Your task to perform on an android device: set an alarm Image 0: 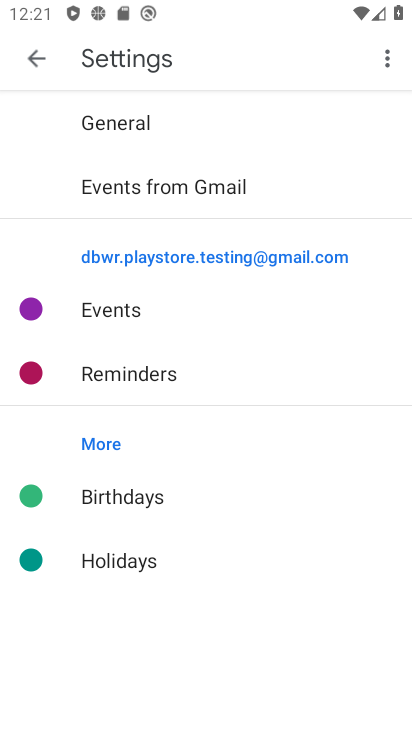
Step 0: press home button
Your task to perform on an android device: set an alarm Image 1: 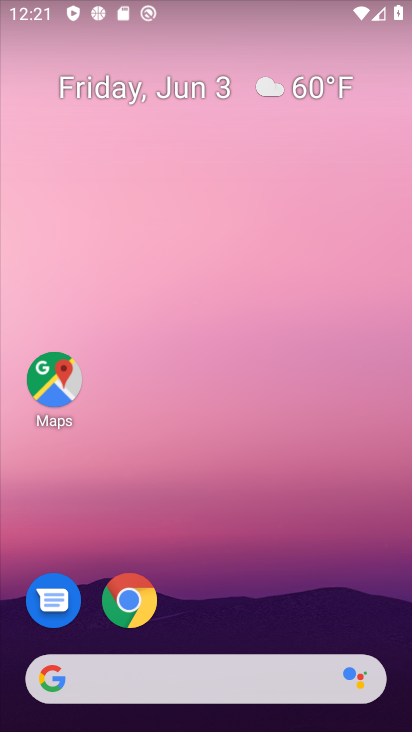
Step 1: drag from (301, 567) to (277, 170)
Your task to perform on an android device: set an alarm Image 2: 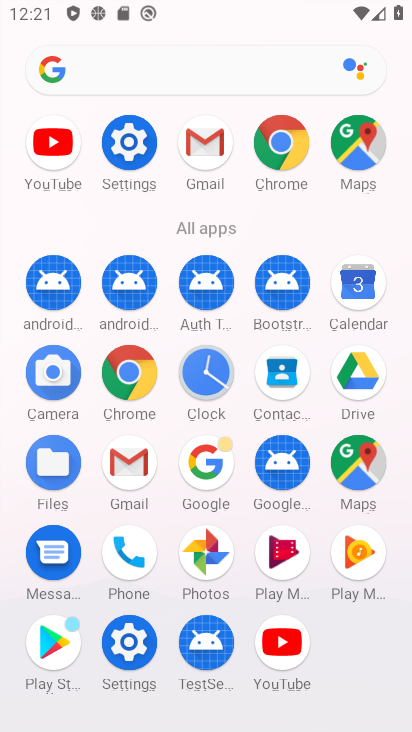
Step 2: click (201, 372)
Your task to perform on an android device: set an alarm Image 3: 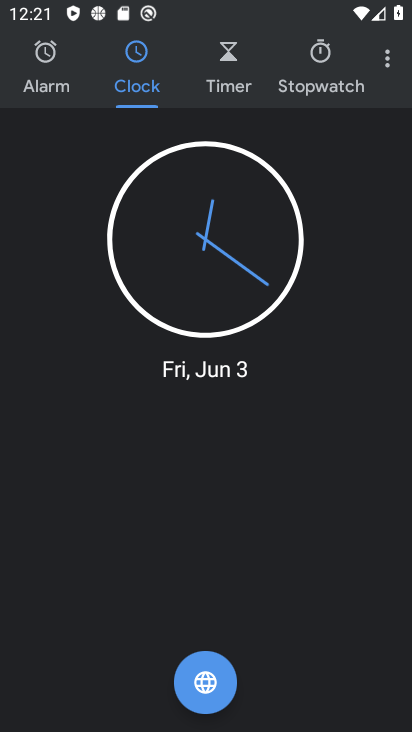
Step 3: click (61, 103)
Your task to perform on an android device: set an alarm Image 4: 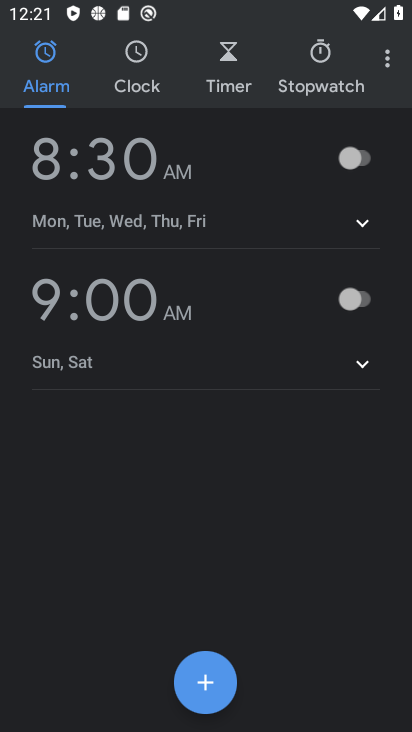
Step 4: click (208, 695)
Your task to perform on an android device: set an alarm Image 5: 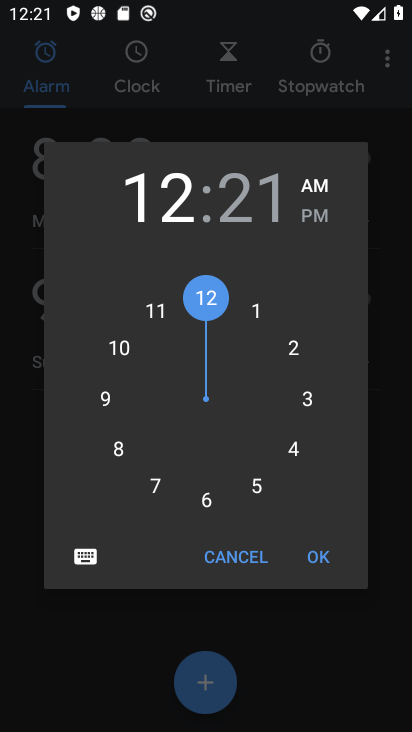
Step 5: click (332, 550)
Your task to perform on an android device: set an alarm Image 6: 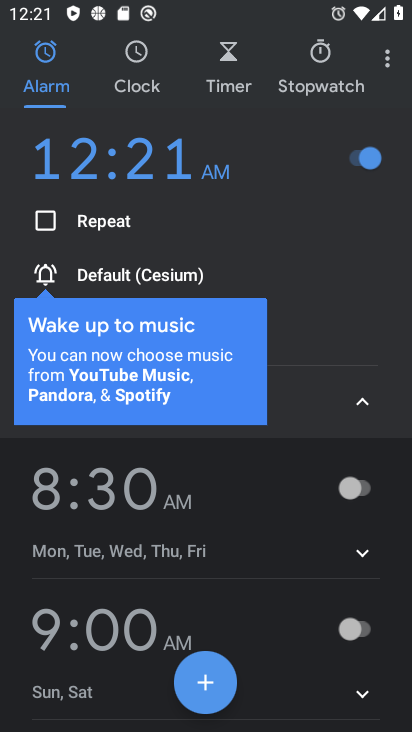
Step 6: task complete